Your task to perform on an android device: Go to internet settings Image 0: 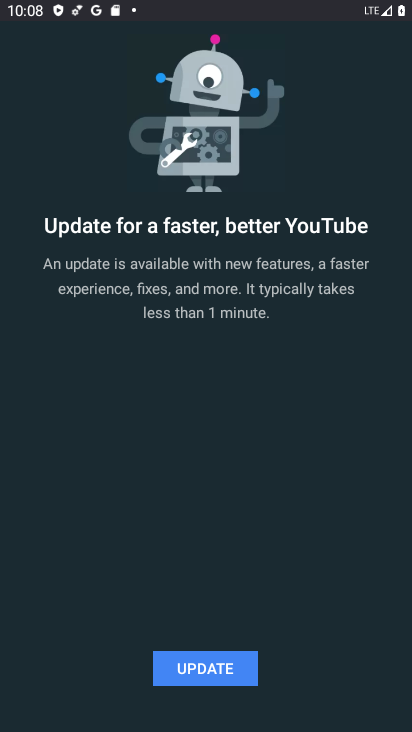
Step 0: press home button
Your task to perform on an android device: Go to internet settings Image 1: 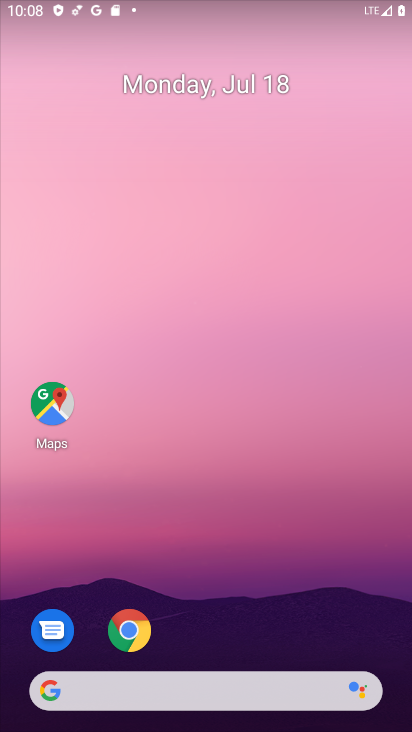
Step 1: drag from (253, 620) to (197, 211)
Your task to perform on an android device: Go to internet settings Image 2: 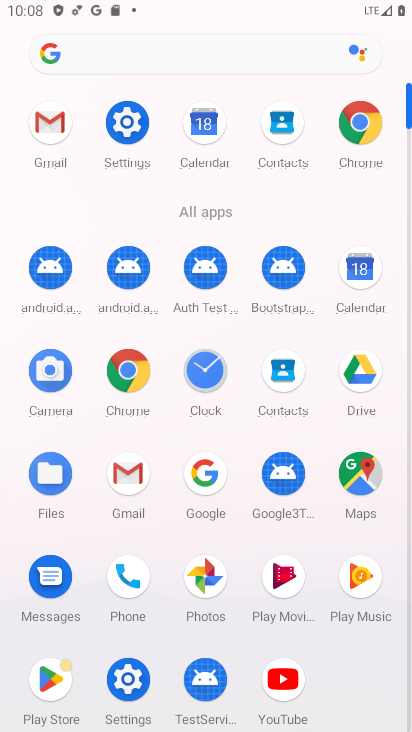
Step 2: click (120, 148)
Your task to perform on an android device: Go to internet settings Image 3: 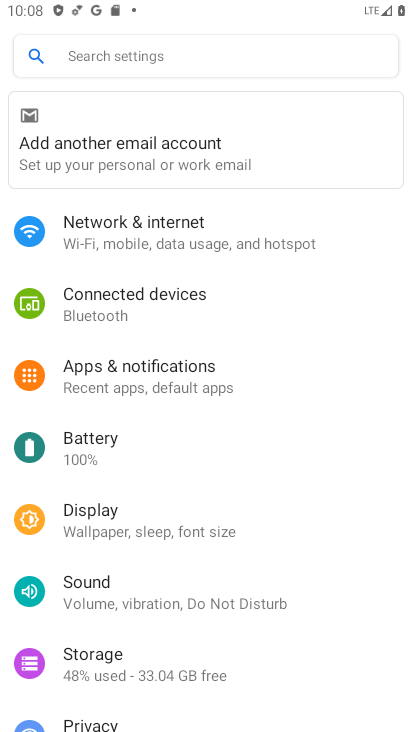
Step 3: click (163, 207)
Your task to perform on an android device: Go to internet settings Image 4: 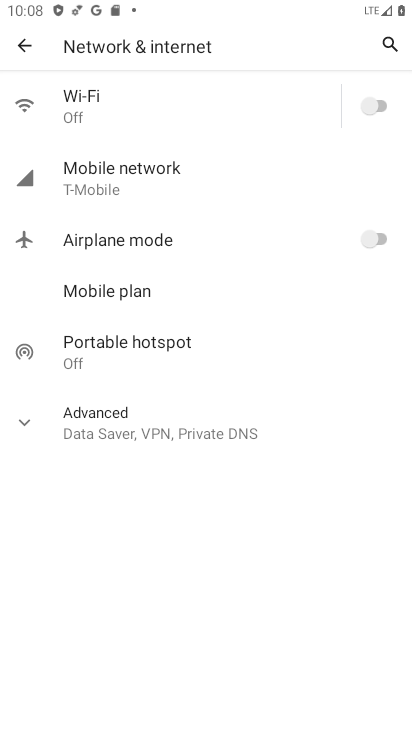
Step 4: task complete